Your task to perform on an android device: clear all cookies in the chrome app Image 0: 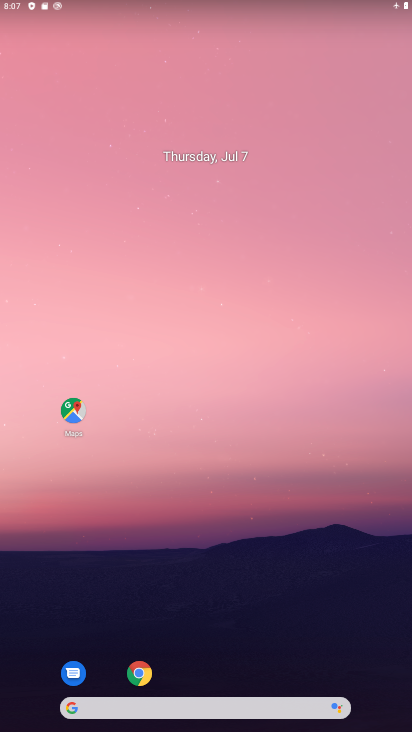
Step 0: drag from (218, 695) to (175, 141)
Your task to perform on an android device: clear all cookies in the chrome app Image 1: 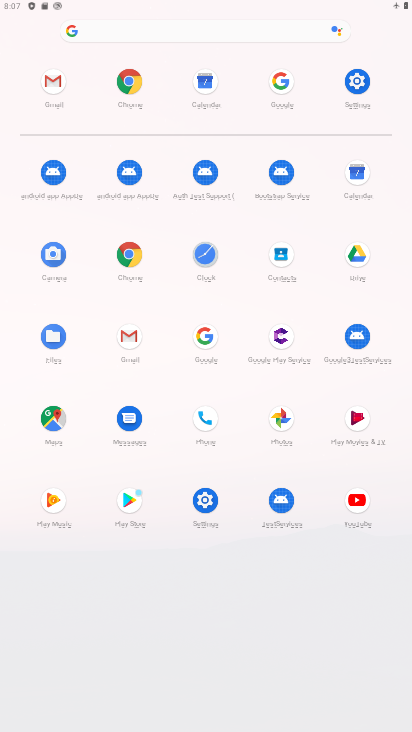
Step 1: click (133, 254)
Your task to perform on an android device: clear all cookies in the chrome app Image 2: 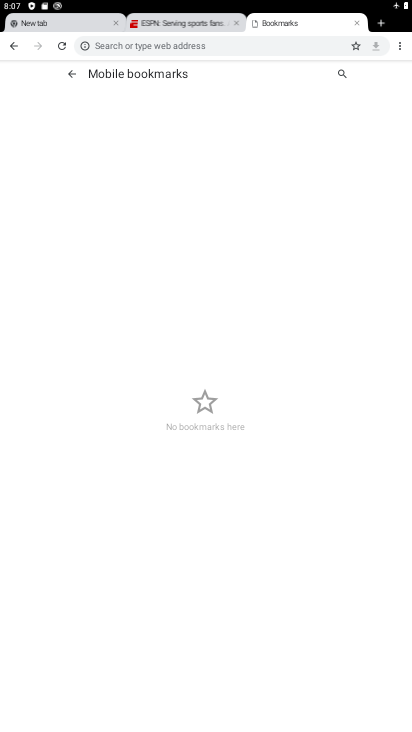
Step 2: click (401, 44)
Your task to perform on an android device: clear all cookies in the chrome app Image 3: 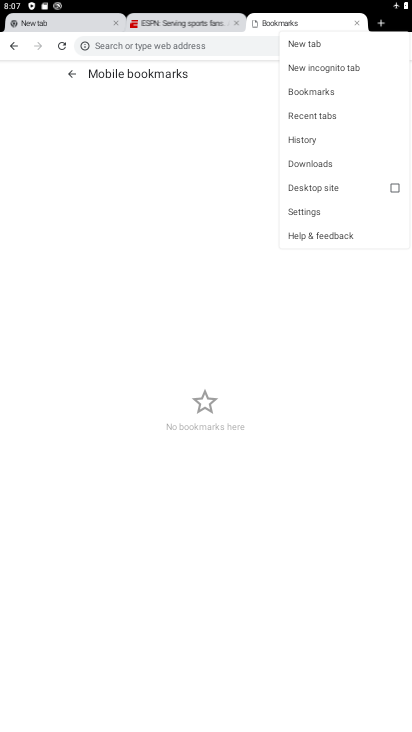
Step 3: click (303, 147)
Your task to perform on an android device: clear all cookies in the chrome app Image 4: 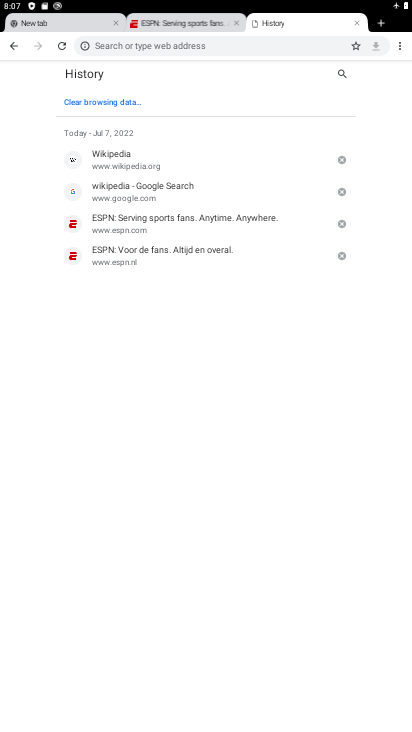
Step 4: click (95, 85)
Your task to perform on an android device: clear all cookies in the chrome app Image 5: 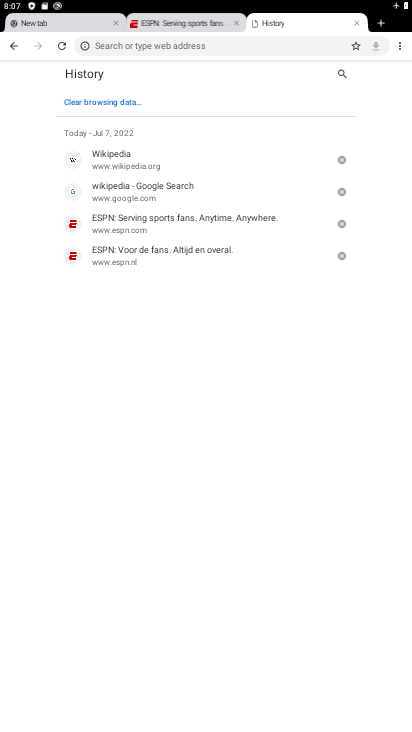
Step 5: click (91, 109)
Your task to perform on an android device: clear all cookies in the chrome app Image 6: 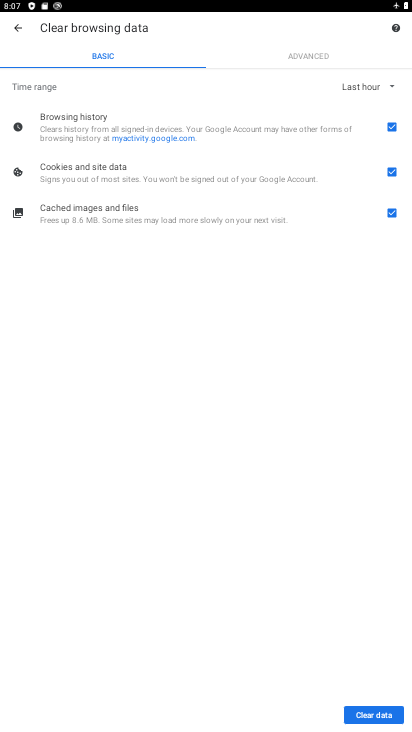
Step 6: click (387, 707)
Your task to perform on an android device: clear all cookies in the chrome app Image 7: 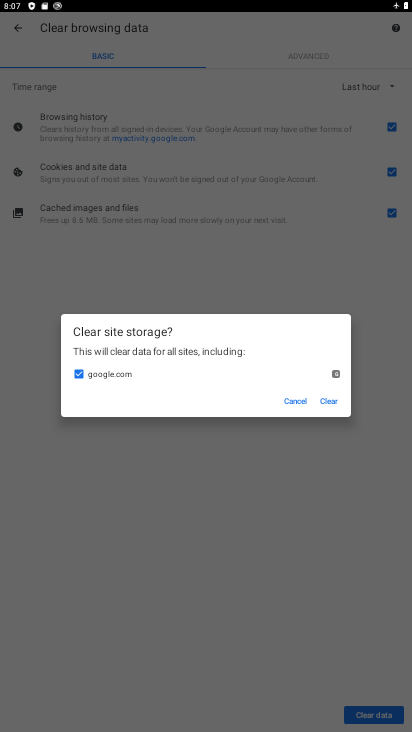
Step 7: click (327, 403)
Your task to perform on an android device: clear all cookies in the chrome app Image 8: 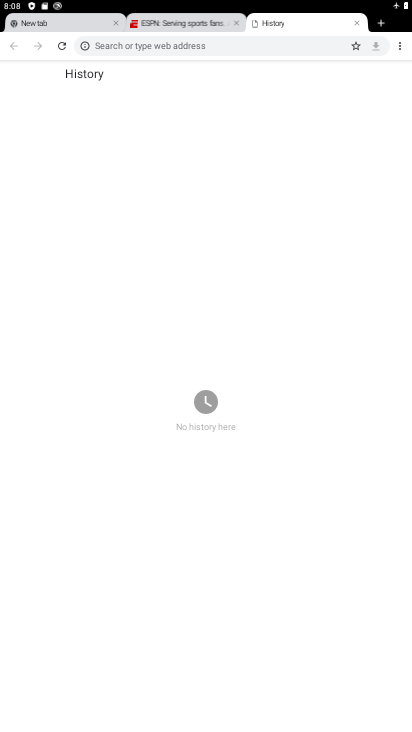
Step 8: task complete